Your task to perform on an android device: change text size in settings app Image 0: 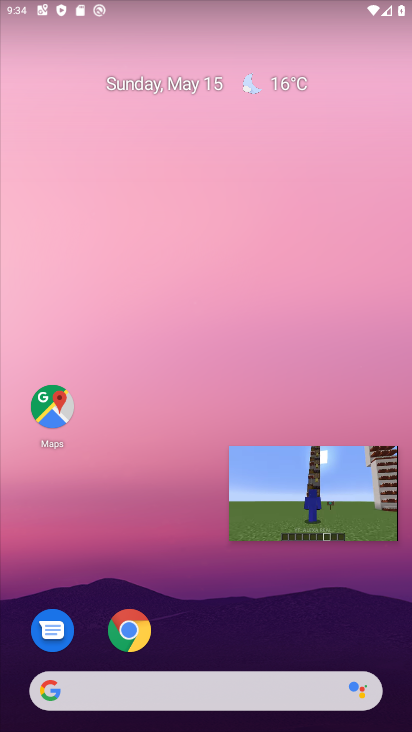
Step 0: click (357, 477)
Your task to perform on an android device: change text size in settings app Image 1: 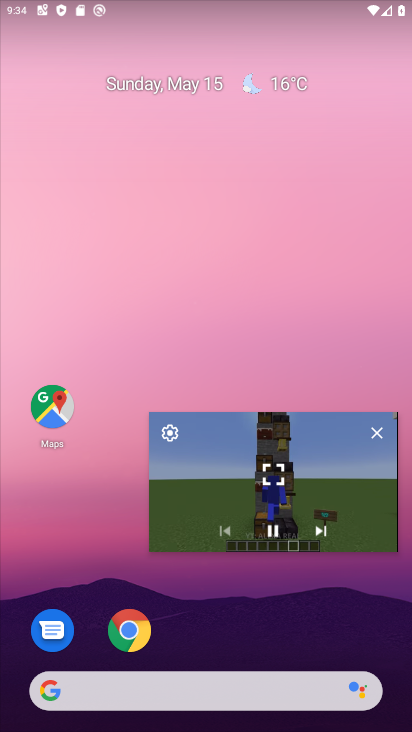
Step 1: click (375, 433)
Your task to perform on an android device: change text size in settings app Image 2: 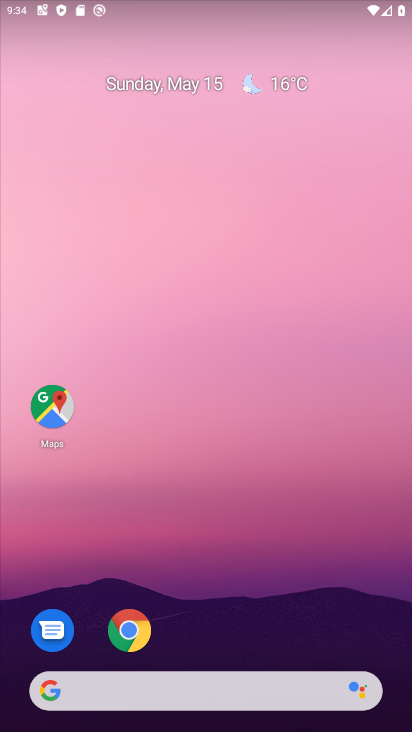
Step 2: drag from (217, 633) to (226, 152)
Your task to perform on an android device: change text size in settings app Image 3: 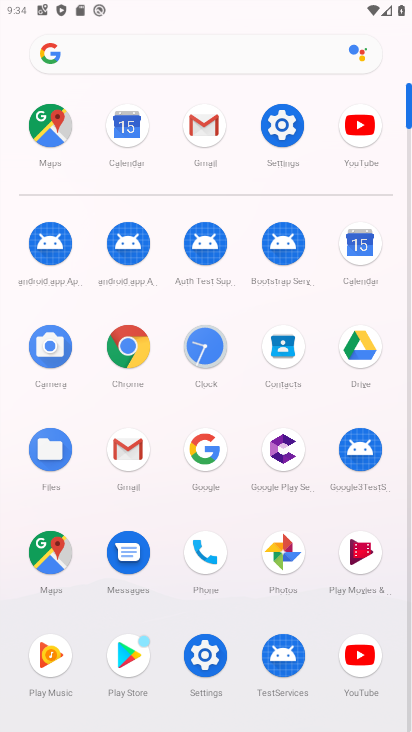
Step 3: click (273, 123)
Your task to perform on an android device: change text size in settings app Image 4: 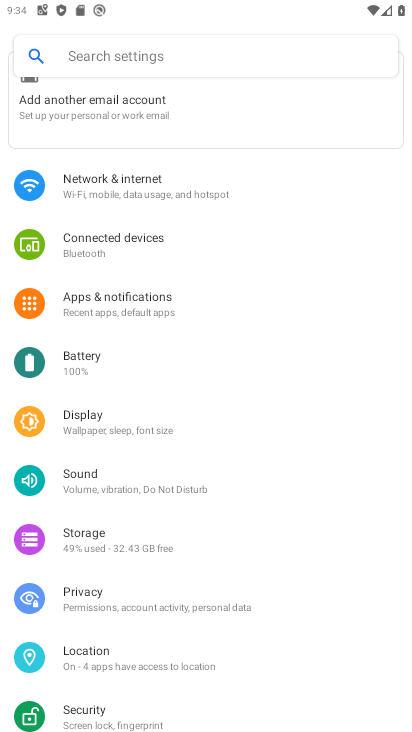
Step 4: click (103, 423)
Your task to perform on an android device: change text size in settings app Image 5: 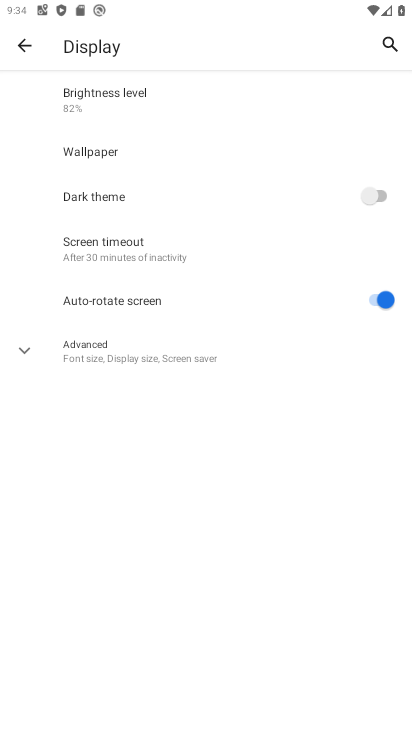
Step 5: click (113, 352)
Your task to perform on an android device: change text size in settings app Image 6: 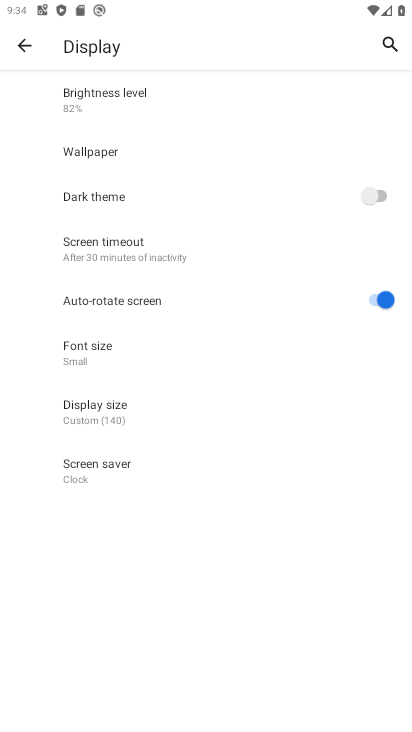
Step 6: click (131, 400)
Your task to perform on an android device: change text size in settings app Image 7: 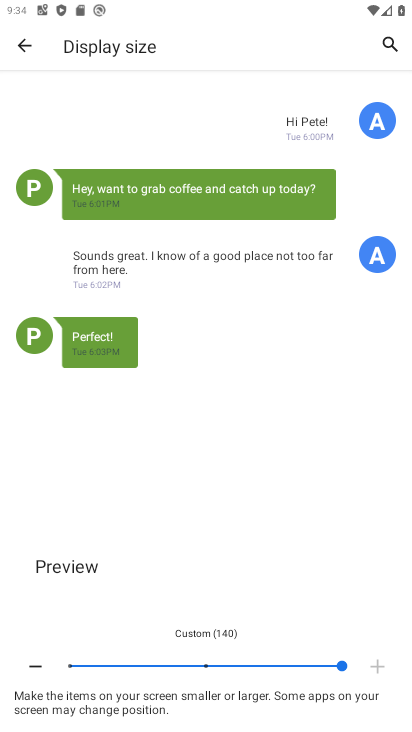
Step 7: click (20, 43)
Your task to perform on an android device: change text size in settings app Image 8: 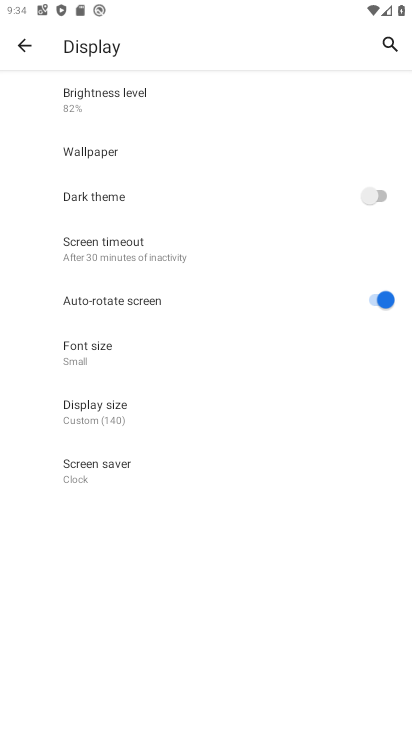
Step 8: click (115, 350)
Your task to perform on an android device: change text size in settings app Image 9: 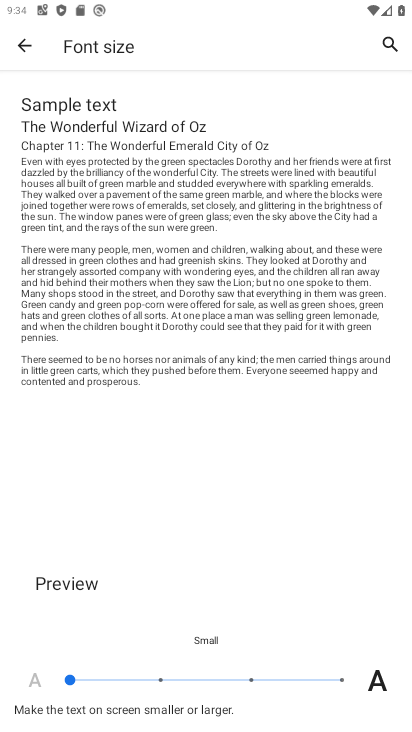
Step 9: click (151, 679)
Your task to perform on an android device: change text size in settings app Image 10: 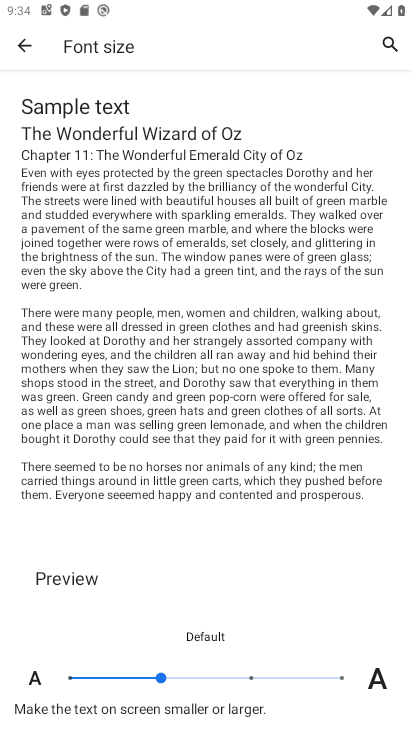
Step 10: task complete